Your task to perform on an android device: open app "TextNow: Call + Text Unlimited" Image 0: 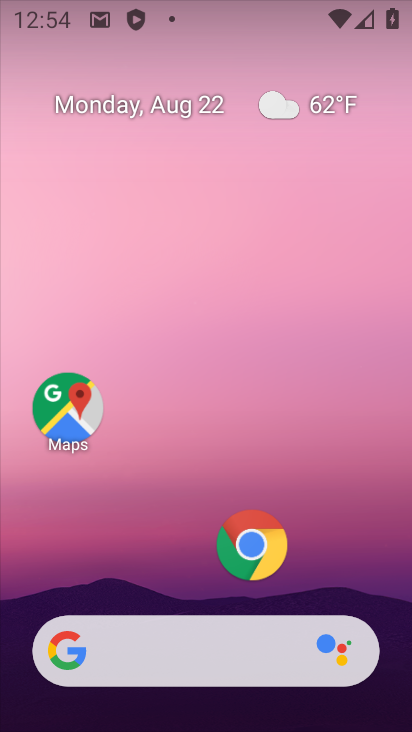
Step 0: drag from (98, 602) to (244, 36)
Your task to perform on an android device: open app "TextNow: Call + Text Unlimited" Image 1: 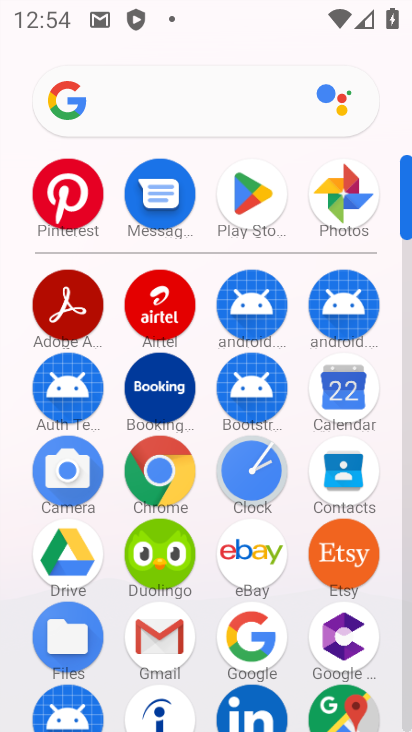
Step 1: click (248, 190)
Your task to perform on an android device: open app "TextNow: Call + Text Unlimited" Image 2: 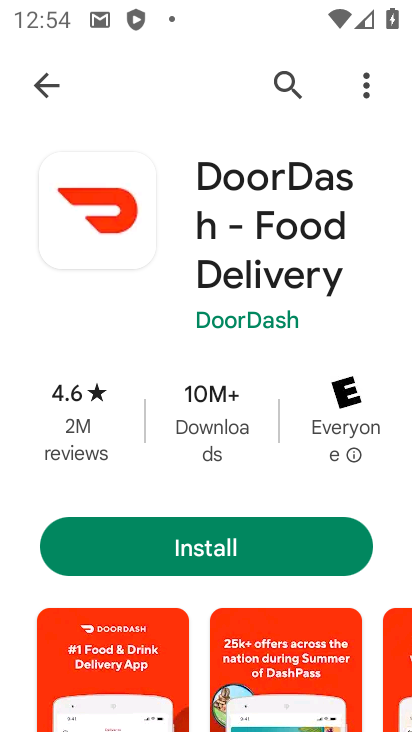
Step 2: click (280, 68)
Your task to perform on an android device: open app "TextNow: Call + Text Unlimited" Image 3: 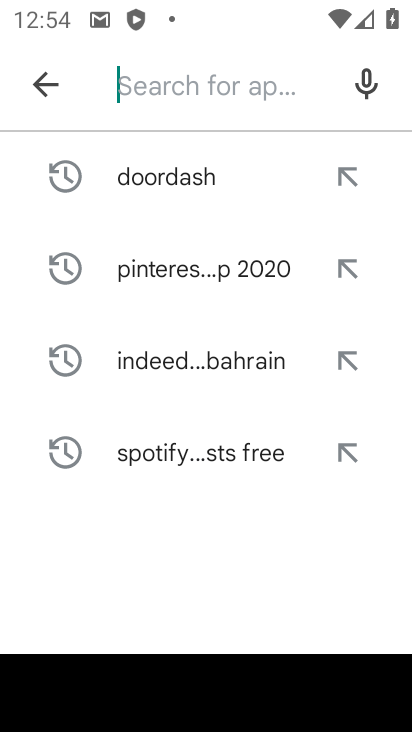
Step 3: click (204, 87)
Your task to perform on an android device: open app "TextNow: Call + Text Unlimited" Image 4: 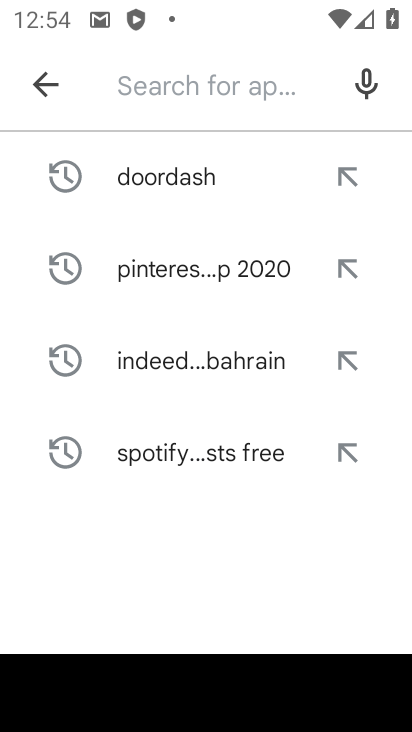
Step 4: click (158, 72)
Your task to perform on an android device: open app "TextNow: Call + Text Unlimited" Image 5: 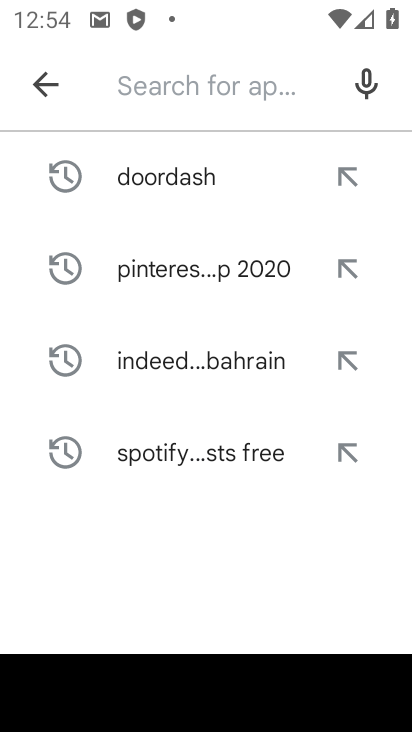
Step 5: type "TextNow"
Your task to perform on an android device: open app "TextNow: Call + Text Unlimited" Image 6: 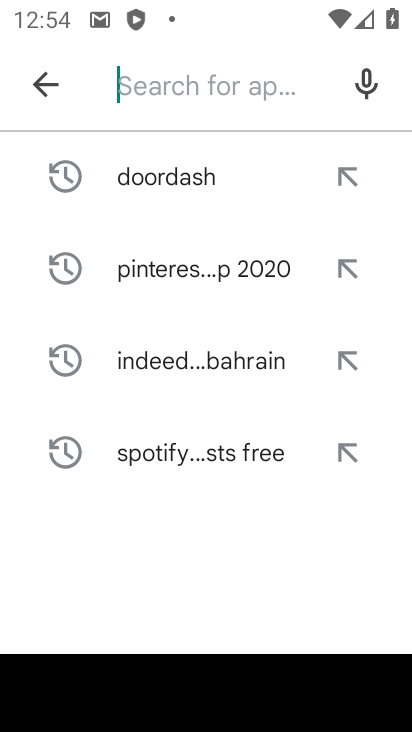
Step 6: click (211, 560)
Your task to perform on an android device: open app "TextNow: Call + Text Unlimited" Image 7: 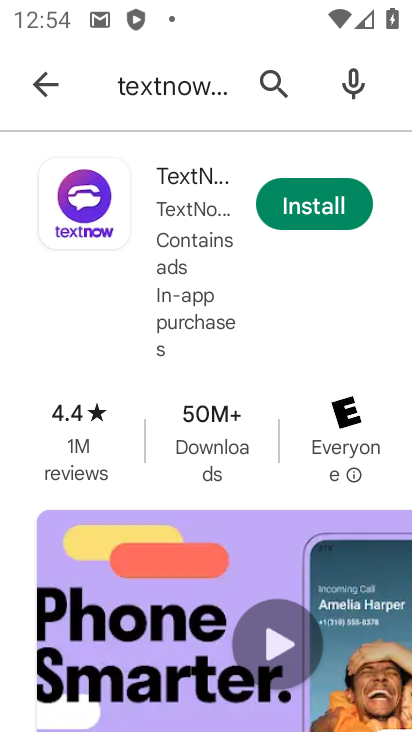
Step 7: task complete